Your task to perform on an android device: change notification settings in the gmail app Image 0: 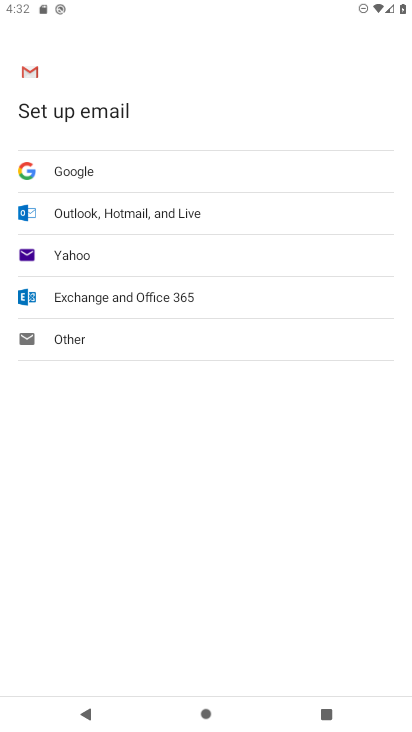
Step 0: press home button
Your task to perform on an android device: change notification settings in the gmail app Image 1: 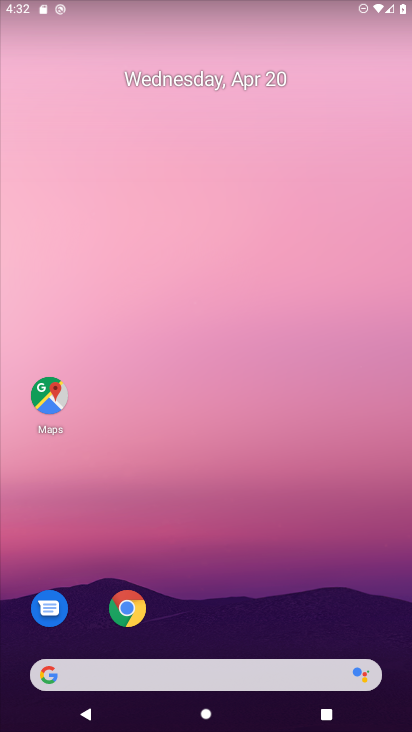
Step 1: drag from (316, 582) to (238, 124)
Your task to perform on an android device: change notification settings in the gmail app Image 2: 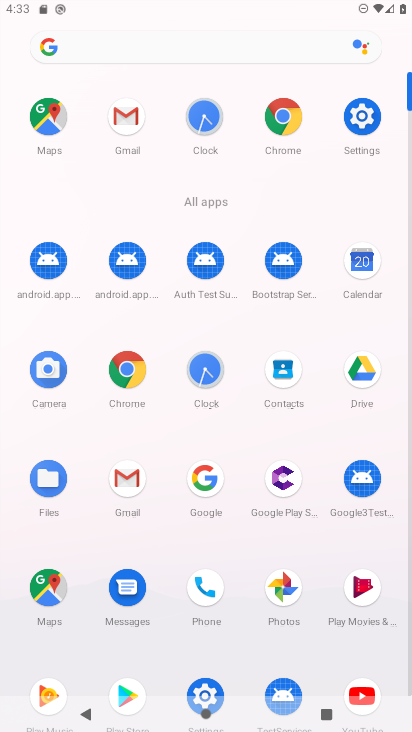
Step 2: click (131, 133)
Your task to perform on an android device: change notification settings in the gmail app Image 3: 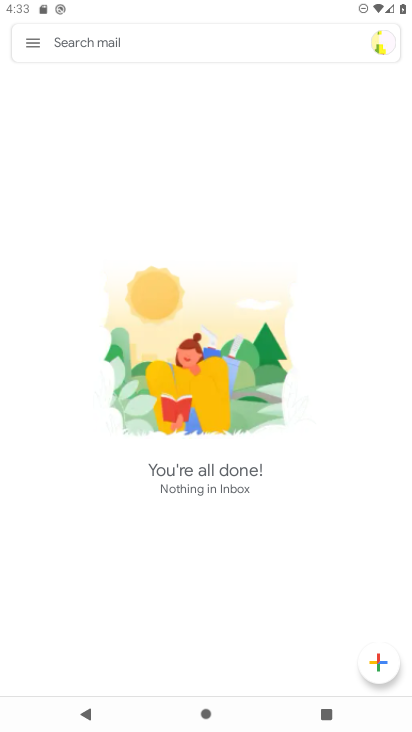
Step 3: click (44, 50)
Your task to perform on an android device: change notification settings in the gmail app Image 4: 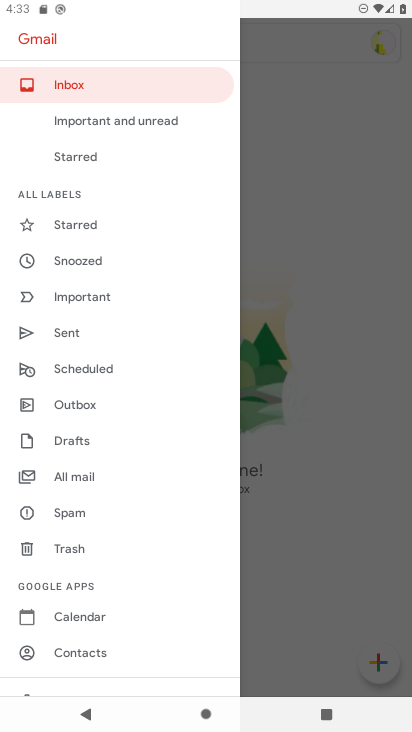
Step 4: drag from (110, 637) to (115, 348)
Your task to perform on an android device: change notification settings in the gmail app Image 5: 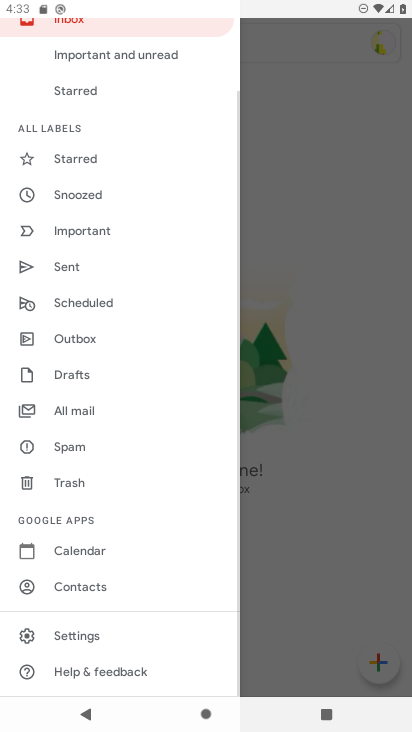
Step 5: click (97, 633)
Your task to perform on an android device: change notification settings in the gmail app Image 6: 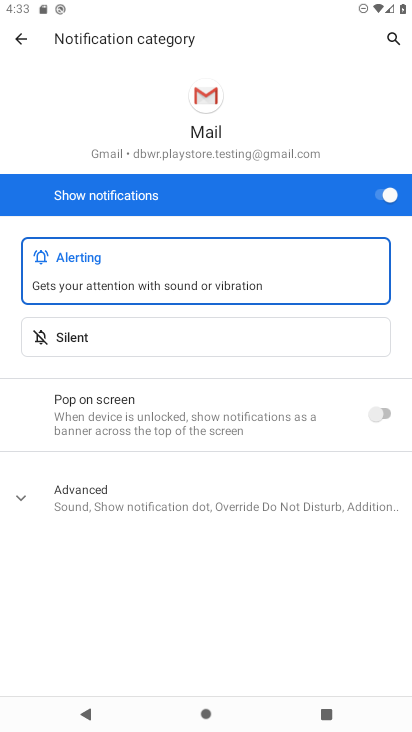
Step 6: click (352, 325)
Your task to perform on an android device: change notification settings in the gmail app Image 7: 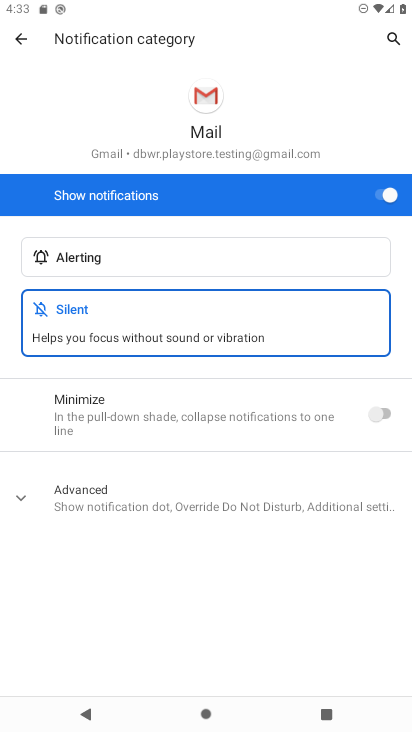
Step 7: click (383, 416)
Your task to perform on an android device: change notification settings in the gmail app Image 8: 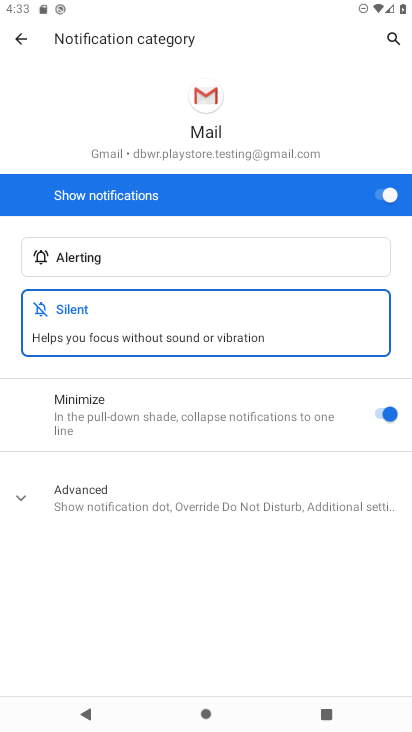
Step 8: task complete